Your task to perform on an android device: set default search engine in the chrome app Image 0: 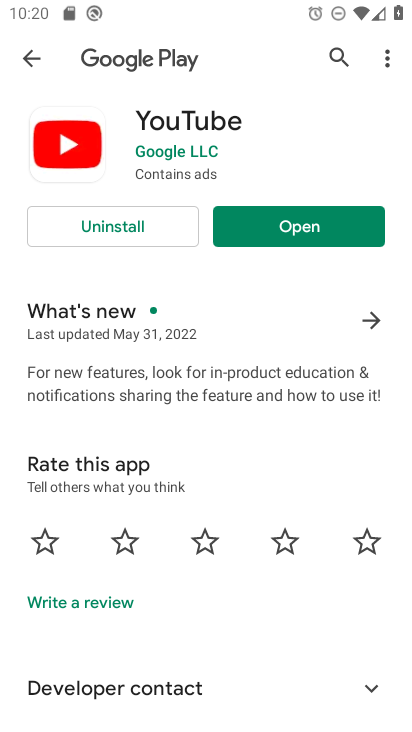
Step 0: press home button
Your task to perform on an android device: set default search engine in the chrome app Image 1: 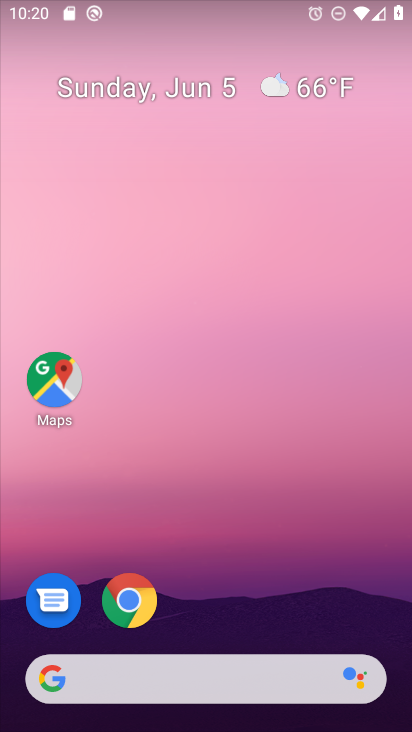
Step 1: drag from (380, 633) to (252, 65)
Your task to perform on an android device: set default search engine in the chrome app Image 2: 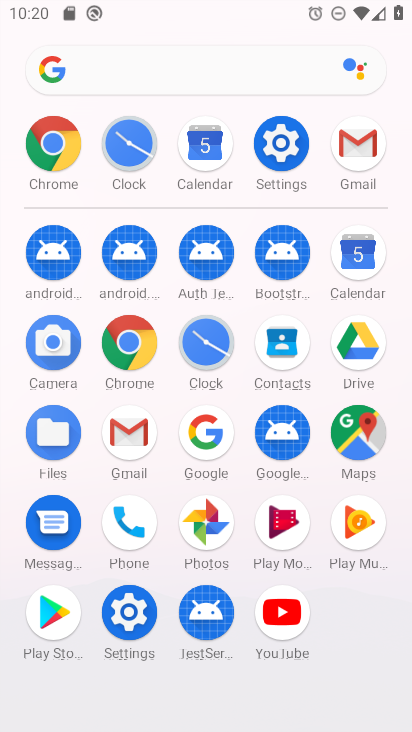
Step 2: click (125, 327)
Your task to perform on an android device: set default search engine in the chrome app Image 3: 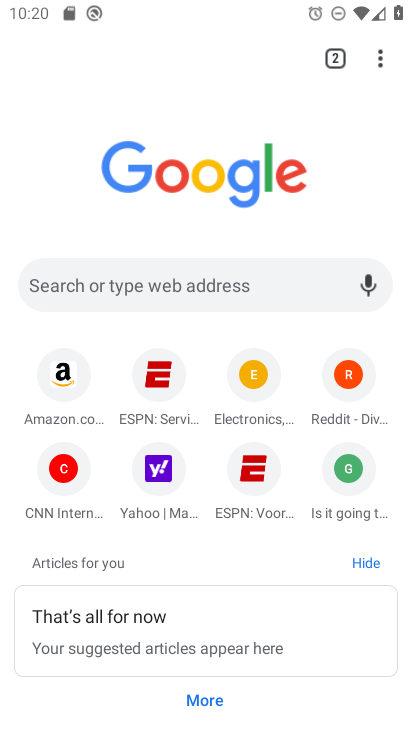
Step 3: click (382, 51)
Your task to perform on an android device: set default search engine in the chrome app Image 4: 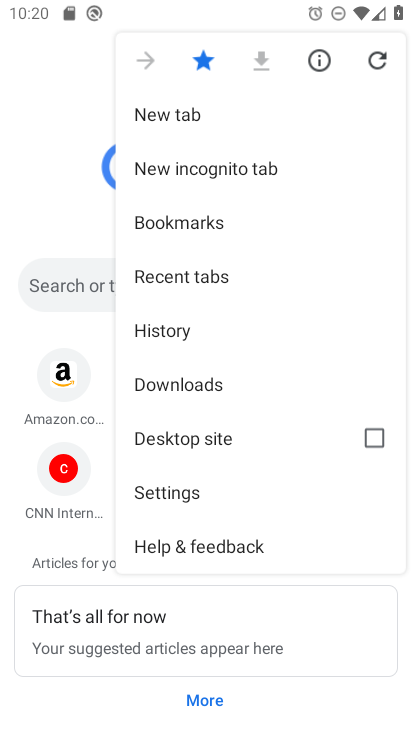
Step 4: click (195, 492)
Your task to perform on an android device: set default search engine in the chrome app Image 5: 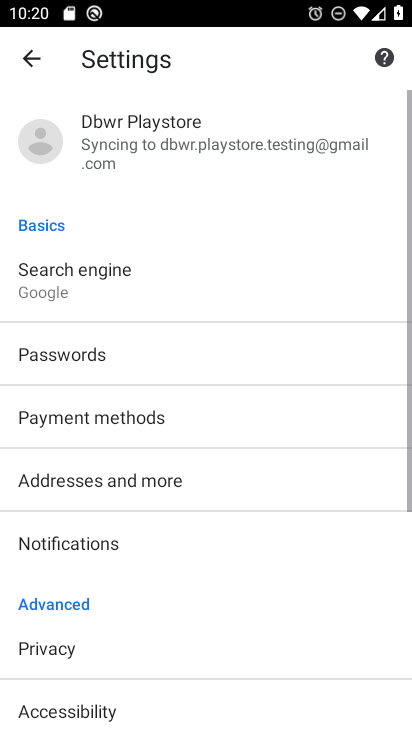
Step 5: click (104, 287)
Your task to perform on an android device: set default search engine in the chrome app Image 6: 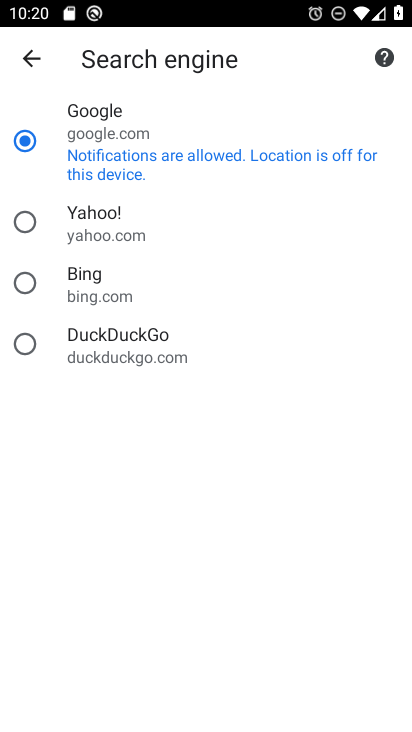
Step 6: click (54, 299)
Your task to perform on an android device: set default search engine in the chrome app Image 7: 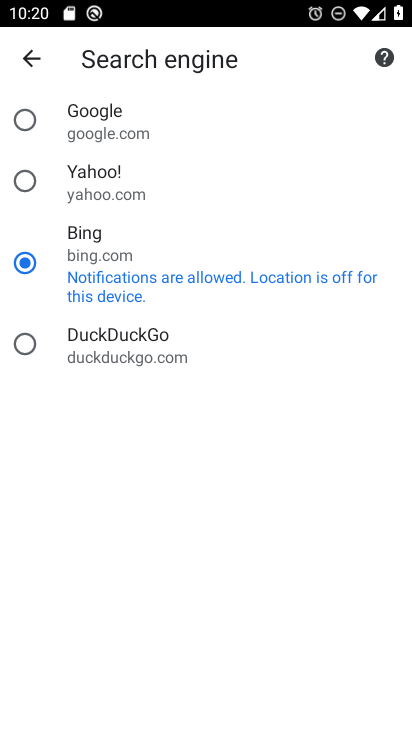
Step 7: task complete